Your task to perform on an android device: Go to Google maps Image 0: 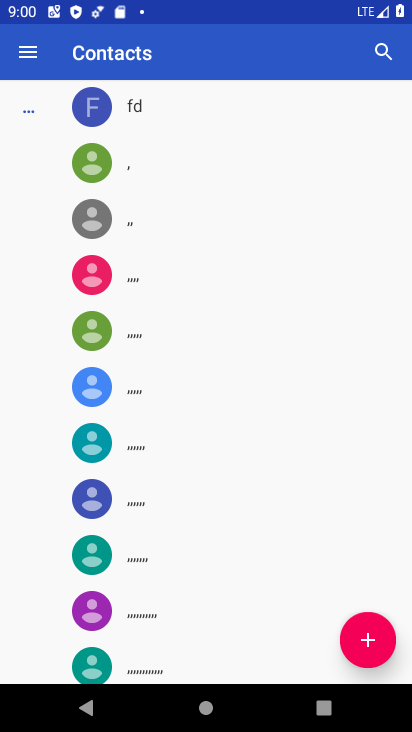
Step 0: press home button
Your task to perform on an android device: Go to Google maps Image 1: 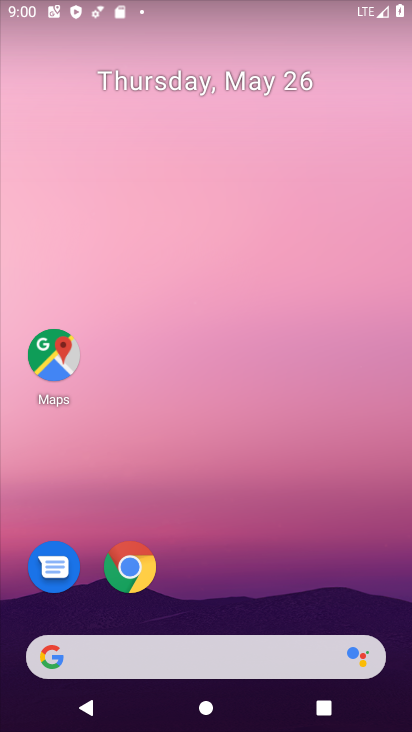
Step 1: click (54, 354)
Your task to perform on an android device: Go to Google maps Image 2: 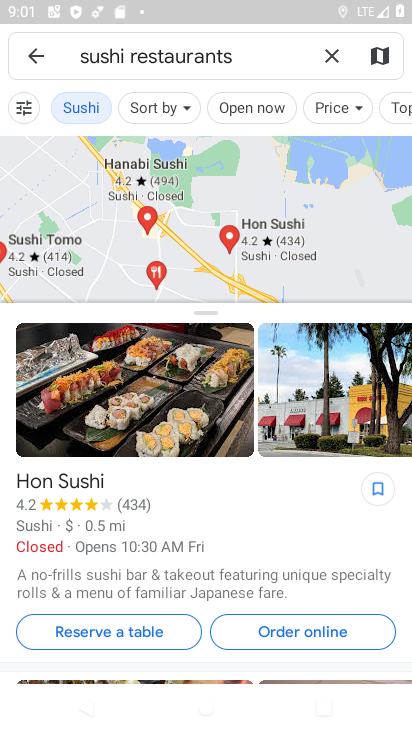
Step 2: task complete